Your task to perform on an android device: find which apps use the phone's location Image 0: 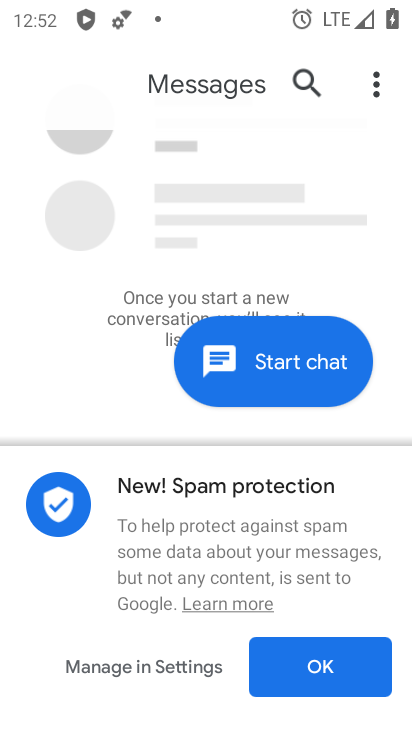
Step 0: press home button
Your task to perform on an android device: find which apps use the phone's location Image 1: 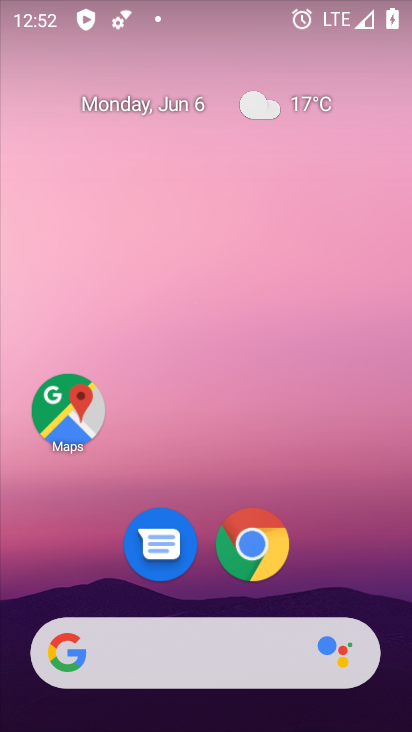
Step 1: drag from (382, 567) to (272, 109)
Your task to perform on an android device: find which apps use the phone's location Image 2: 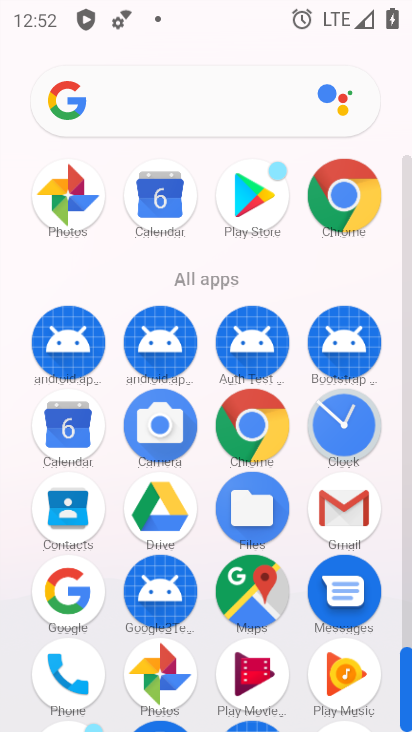
Step 2: drag from (398, 619) to (386, 326)
Your task to perform on an android device: find which apps use the phone's location Image 3: 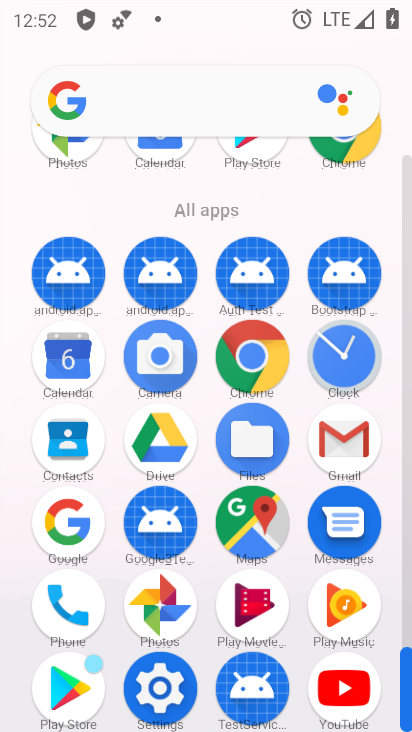
Step 3: click (156, 718)
Your task to perform on an android device: find which apps use the phone's location Image 4: 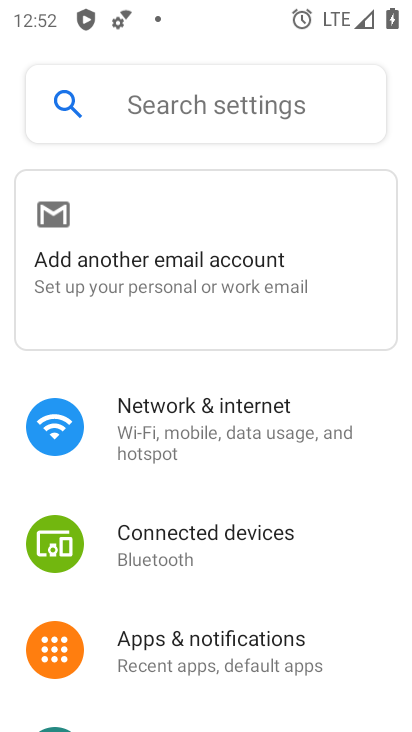
Step 4: drag from (210, 711) to (214, 93)
Your task to perform on an android device: find which apps use the phone's location Image 5: 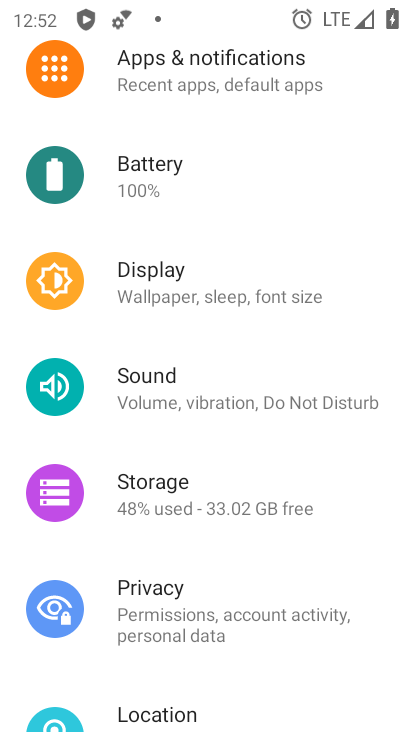
Step 5: drag from (210, 492) to (253, 132)
Your task to perform on an android device: find which apps use the phone's location Image 6: 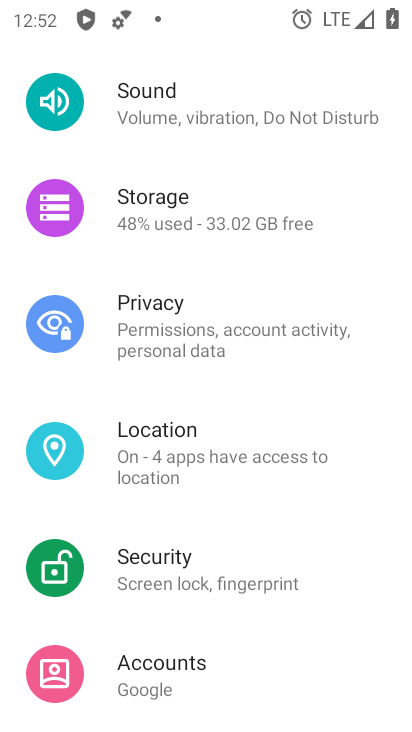
Step 6: click (257, 454)
Your task to perform on an android device: find which apps use the phone's location Image 7: 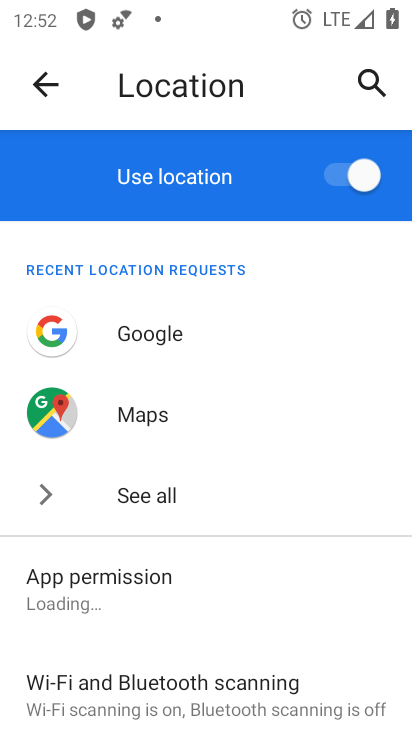
Step 7: click (236, 570)
Your task to perform on an android device: find which apps use the phone's location Image 8: 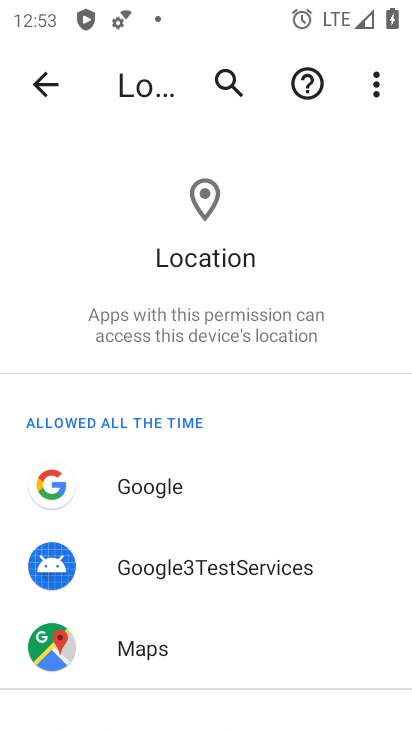
Step 8: task complete